Your task to perform on an android device: snooze an email in the gmail app Image 0: 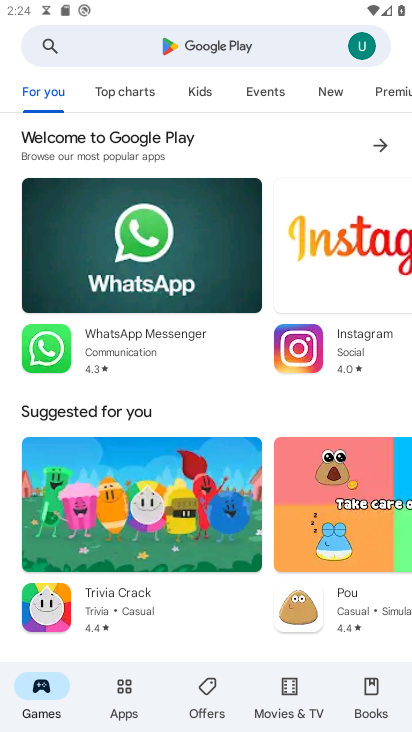
Step 0: press home button
Your task to perform on an android device: snooze an email in the gmail app Image 1: 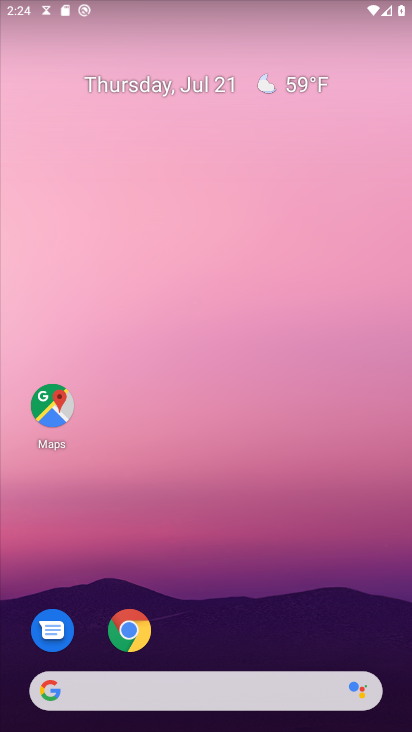
Step 1: drag from (182, 589) to (173, 16)
Your task to perform on an android device: snooze an email in the gmail app Image 2: 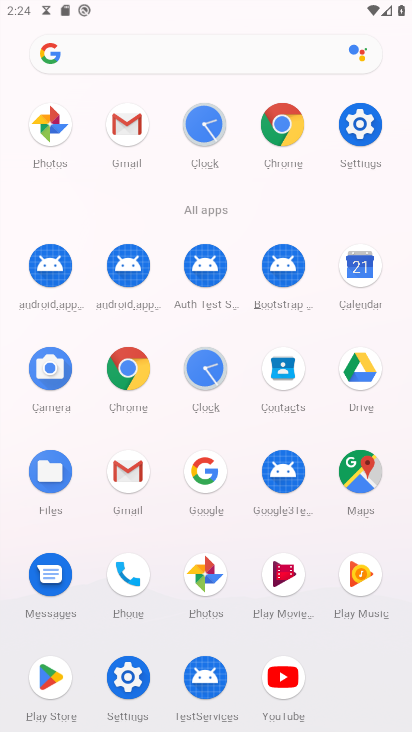
Step 2: click (118, 124)
Your task to perform on an android device: snooze an email in the gmail app Image 3: 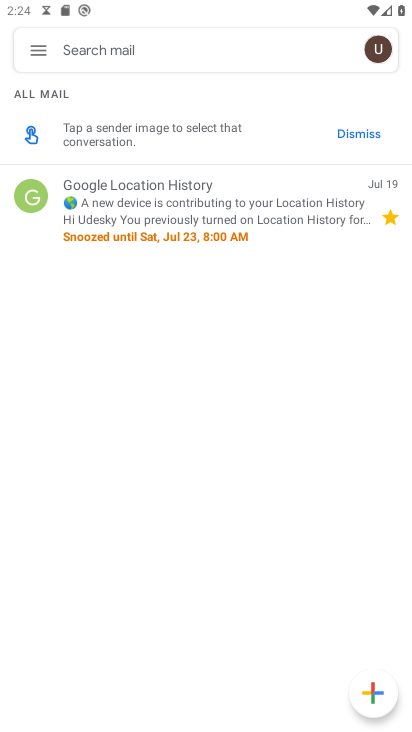
Step 3: click (186, 219)
Your task to perform on an android device: snooze an email in the gmail app Image 4: 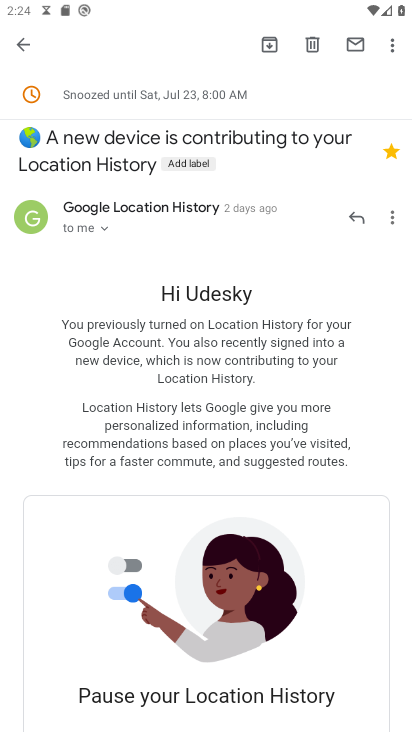
Step 4: click (388, 43)
Your task to perform on an android device: snooze an email in the gmail app Image 5: 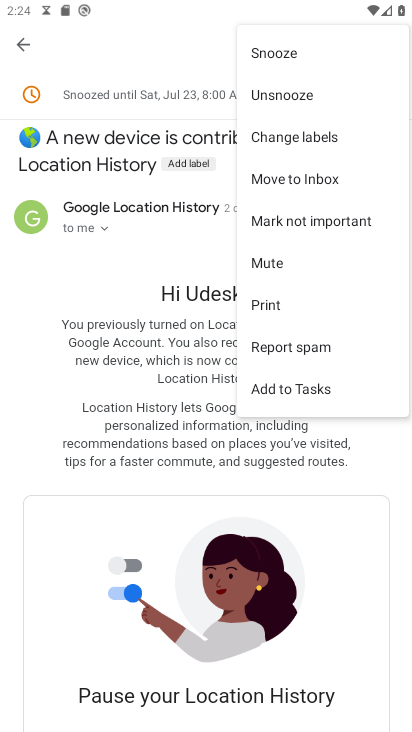
Step 5: task complete